Your task to perform on an android device: What's the weather going to be tomorrow? Image 0: 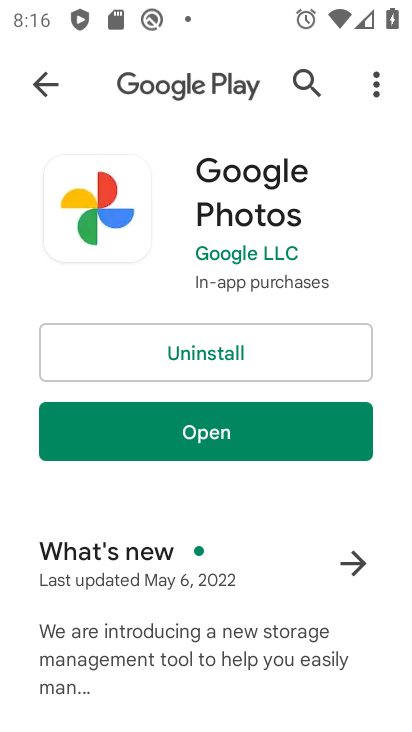
Step 0: press home button
Your task to perform on an android device: What's the weather going to be tomorrow? Image 1: 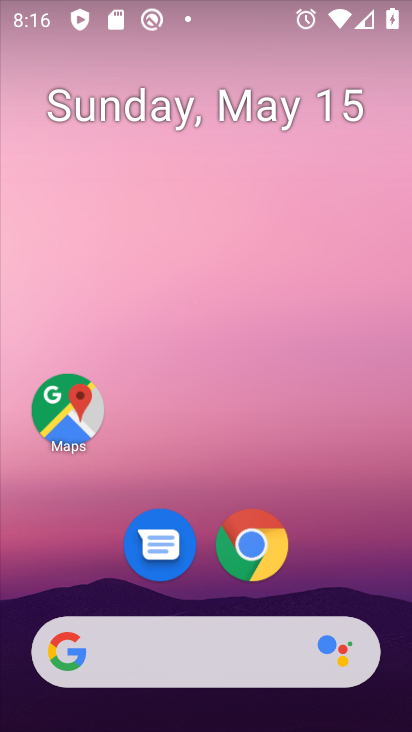
Step 1: click (165, 650)
Your task to perform on an android device: What's the weather going to be tomorrow? Image 2: 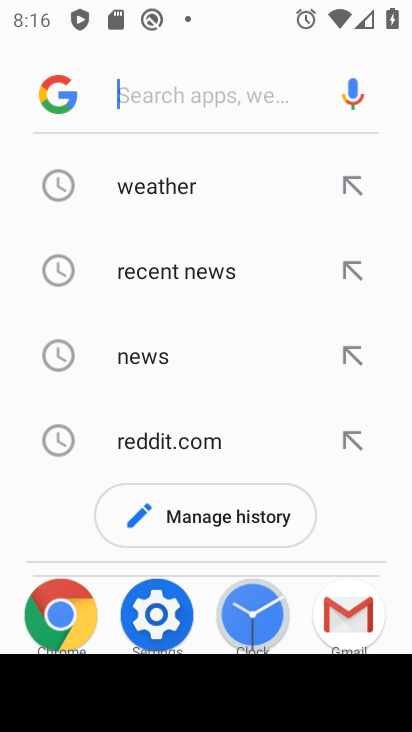
Step 2: click (167, 190)
Your task to perform on an android device: What's the weather going to be tomorrow? Image 3: 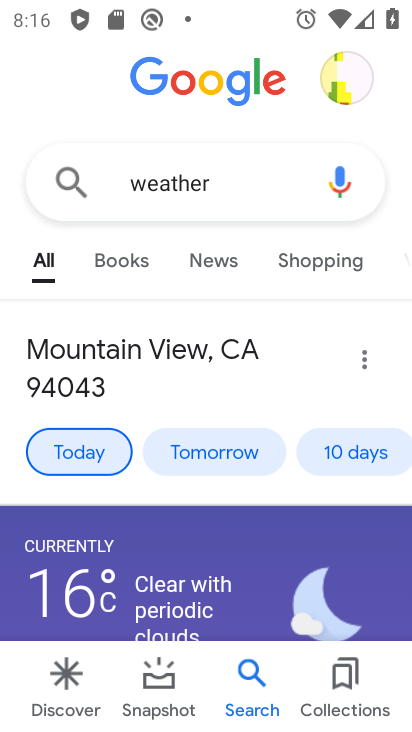
Step 3: click (216, 461)
Your task to perform on an android device: What's the weather going to be tomorrow? Image 4: 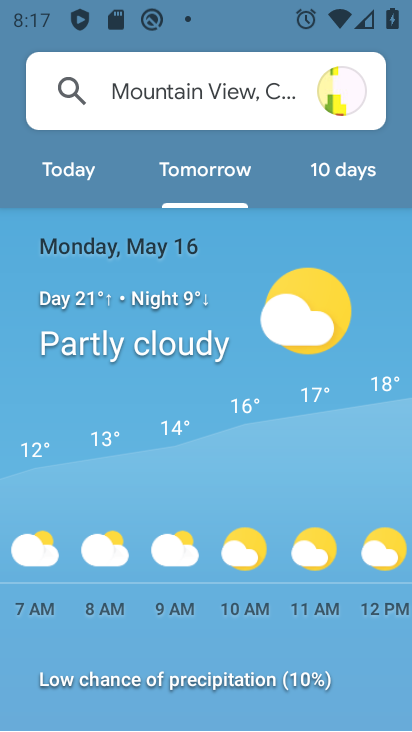
Step 4: task complete